Your task to perform on an android device: Go to Wikipedia Image 0: 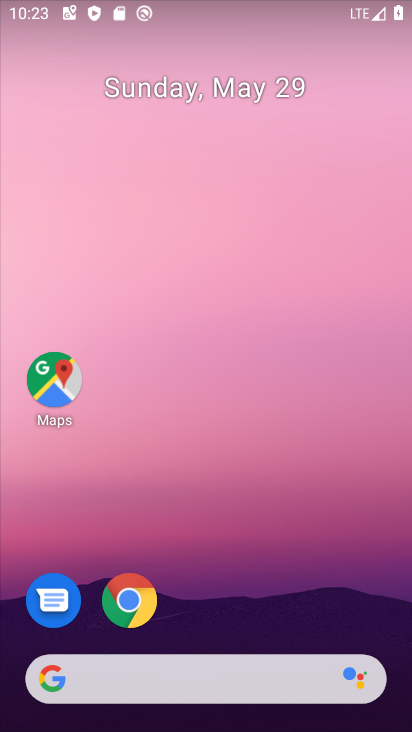
Step 0: click (138, 591)
Your task to perform on an android device: Go to Wikipedia Image 1: 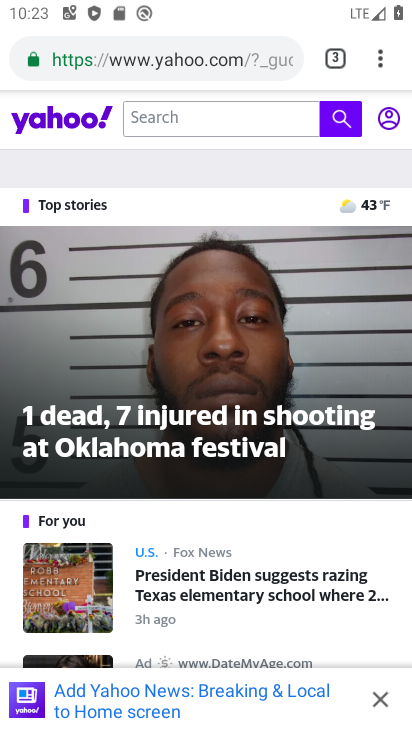
Step 1: drag from (382, 68) to (217, 109)
Your task to perform on an android device: Go to Wikipedia Image 2: 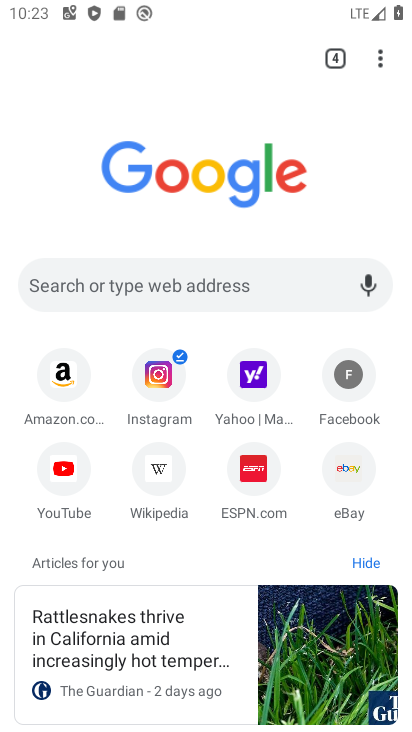
Step 2: click (164, 470)
Your task to perform on an android device: Go to Wikipedia Image 3: 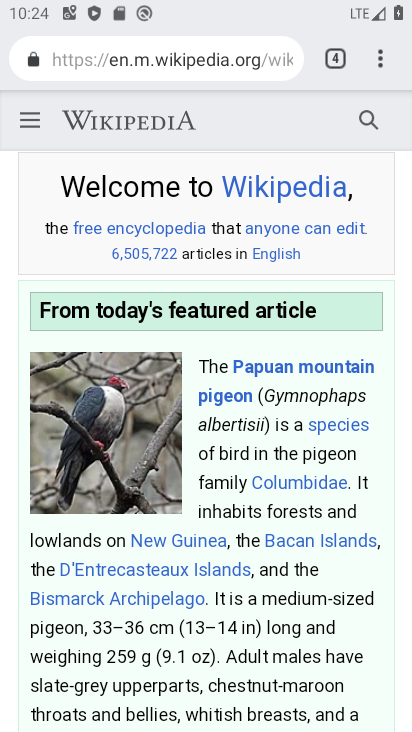
Step 3: task complete